Your task to perform on an android device: Open Yahoo.com Image 0: 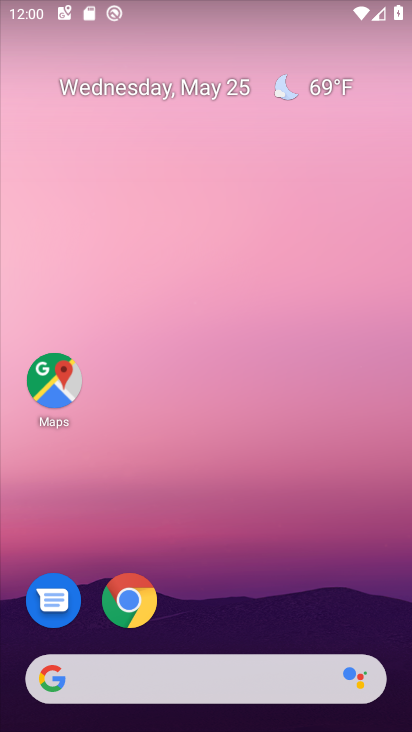
Step 0: drag from (387, 624) to (357, 189)
Your task to perform on an android device: Open Yahoo.com Image 1: 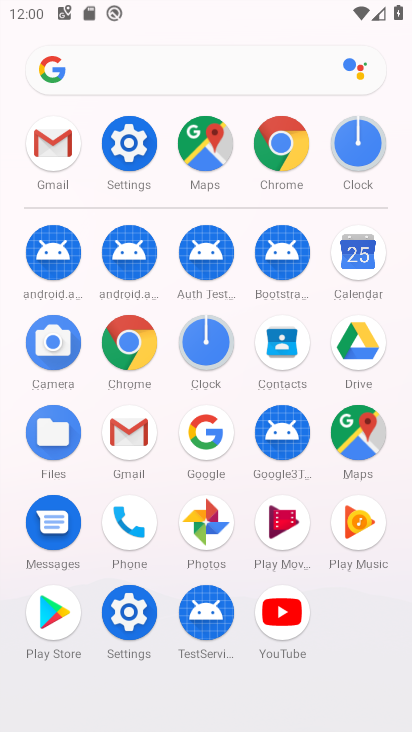
Step 1: click (140, 346)
Your task to perform on an android device: Open Yahoo.com Image 2: 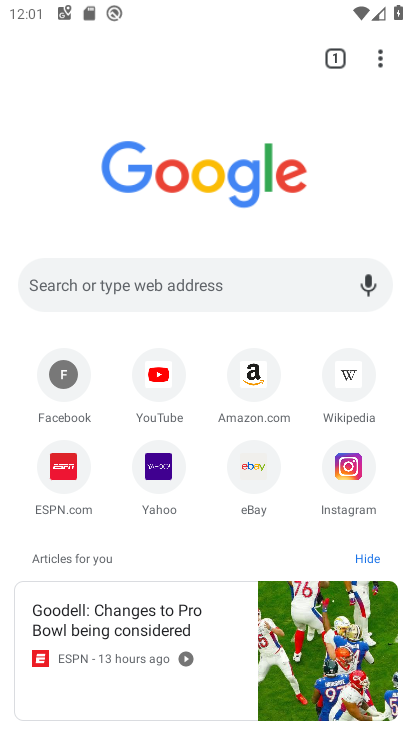
Step 2: click (157, 486)
Your task to perform on an android device: Open Yahoo.com Image 3: 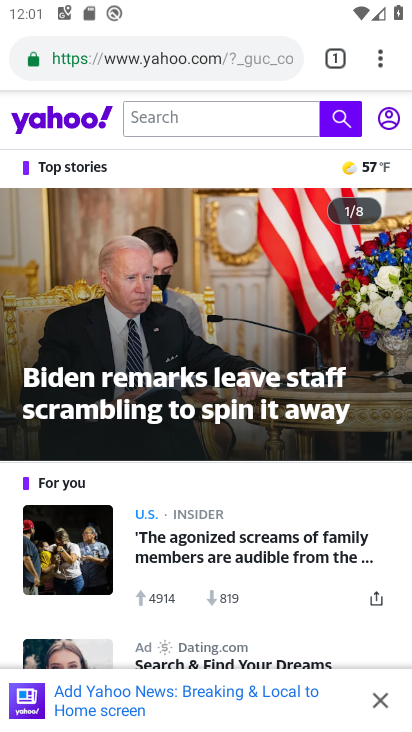
Step 3: task complete